Your task to perform on an android device: turn smart compose on in the gmail app Image 0: 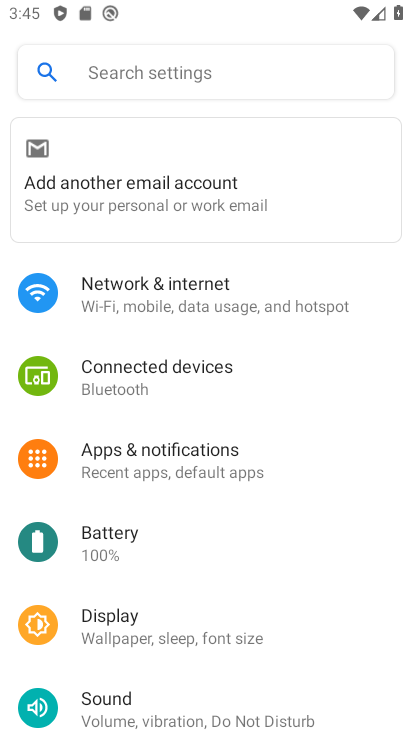
Step 0: press home button
Your task to perform on an android device: turn smart compose on in the gmail app Image 1: 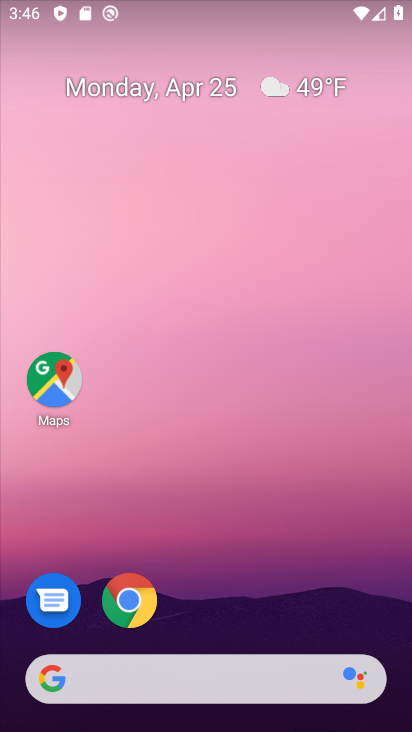
Step 1: drag from (269, 554) to (267, 19)
Your task to perform on an android device: turn smart compose on in the gmail app Image 2: 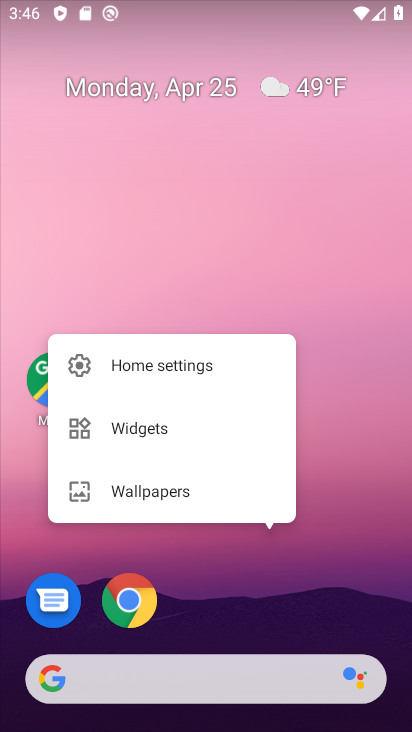
Step 2: drag from (341, 588) to (374, 0)
Your task to perform on an android device: turn smart compose on in the gmail app Image 3: 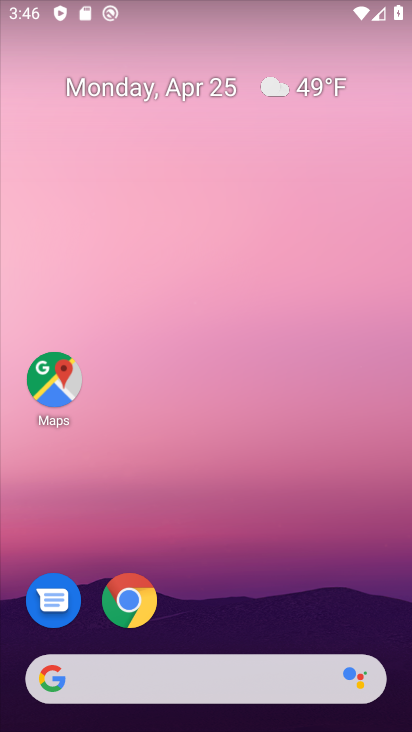
Step 3: drag from (246, 579) to (319, 40)
Your task to perform on an android device: turn smart compose on in the gmail app Image 4: 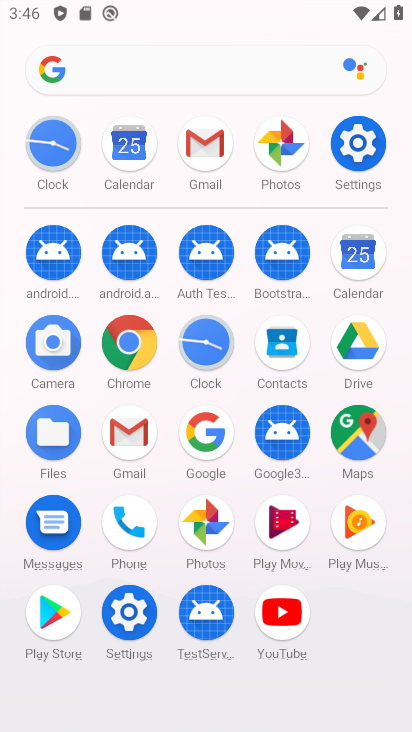
Step 4: click (214, 145)
Your task to perform on an android device: turn smart compose on in the gmail app Image 5: 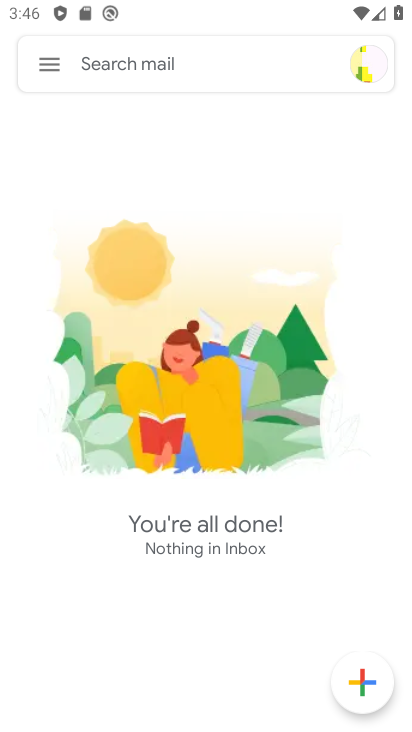
Step 5: click (48, 64)
Your task to perform on an android device: turn smart compose on in the gmail app Image 6: 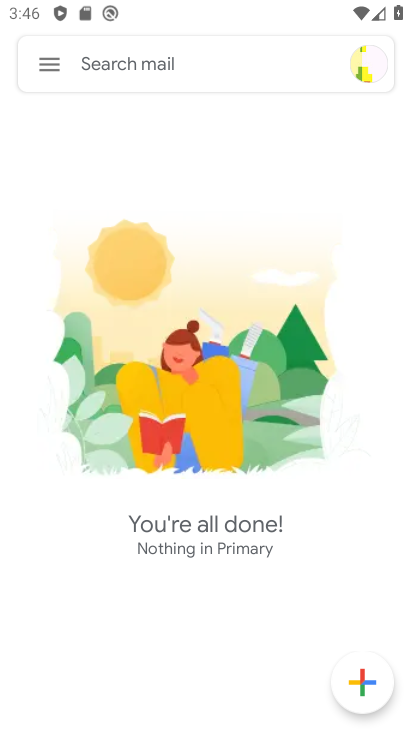
Step 6: click (48, 64)
Your task to perform on an android device: turn smart compose on in the gmail app Image 7: 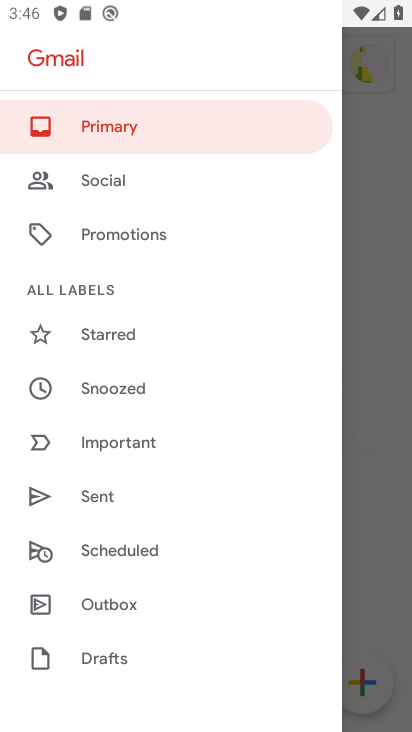
Step 7: drag from (137, 579) to (228, 137)
Your task to perform on an android device: turn smart compose on in the gmail app Image 8: 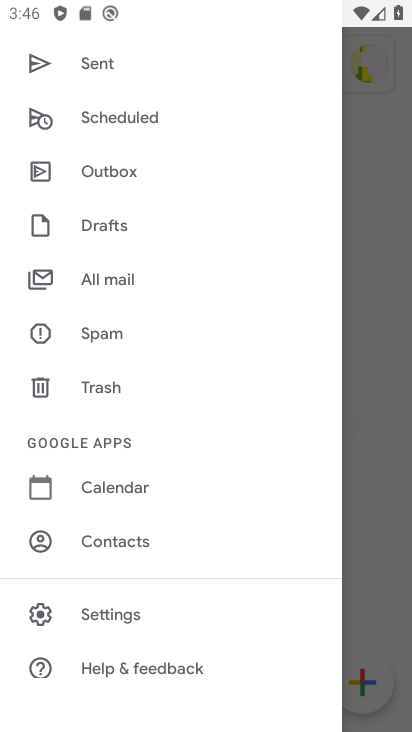
Step 8: click (139, 607)
Your task to perform on an android device: turn smart compose on in the gmail app Image 9: 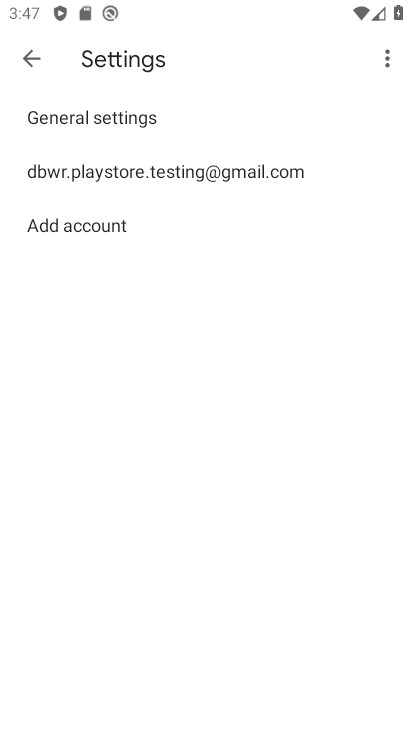
Step 9: click (214, 156)
Your task to perform on an android device: turn smart compose on in the gmail app Image 10: 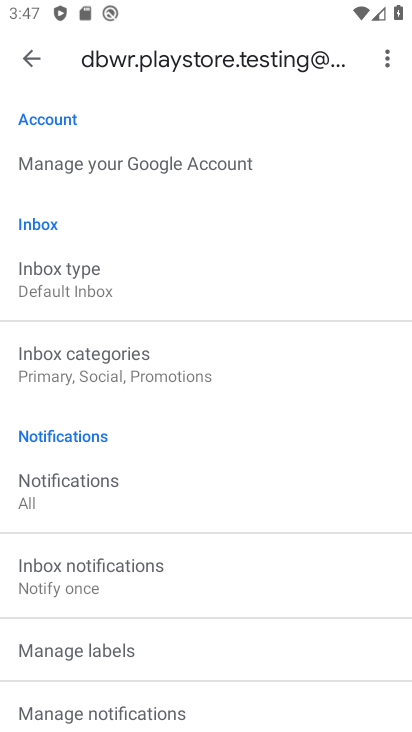
Step 10: task complete